Your task to perform on an android device: Go to Maps Image 0: 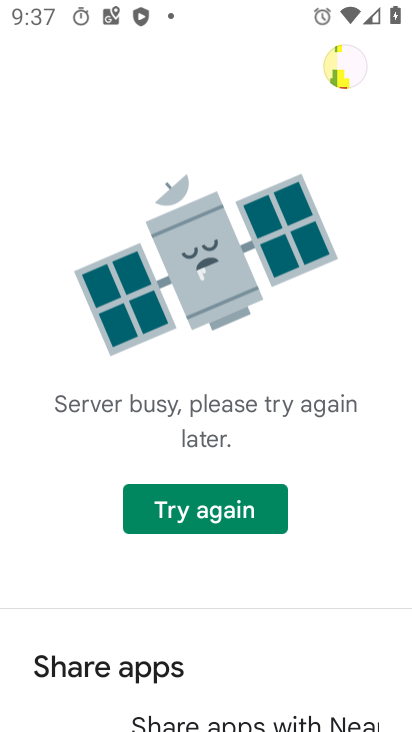
Step 0: press back button
Your task to perform on an android device: Go to Maps Image 1: 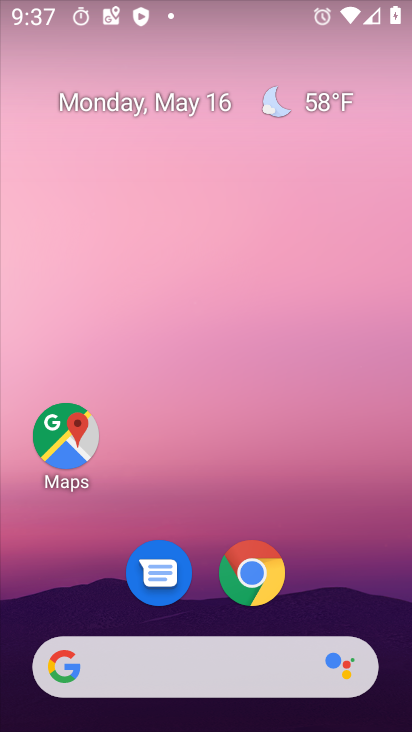
Step 1: drag from (378, 643) to (173, 138)
Your task to perform on an android device: Go to Maps Image 2: 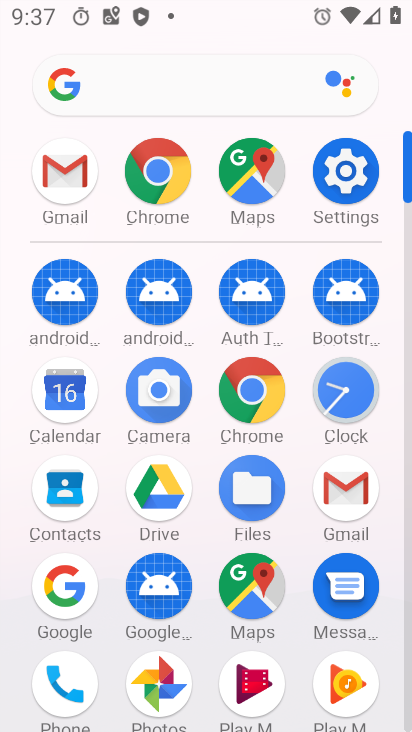
Step 2: click (243, 592)
Your task to perform on an android device: Go to Maps Image 3: 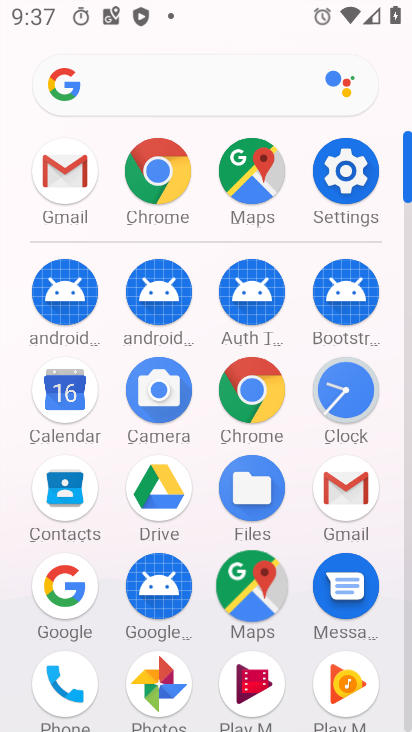
Step 3: click (243, 591)
Your task to perform on an android device: Go to Maps Image 4: 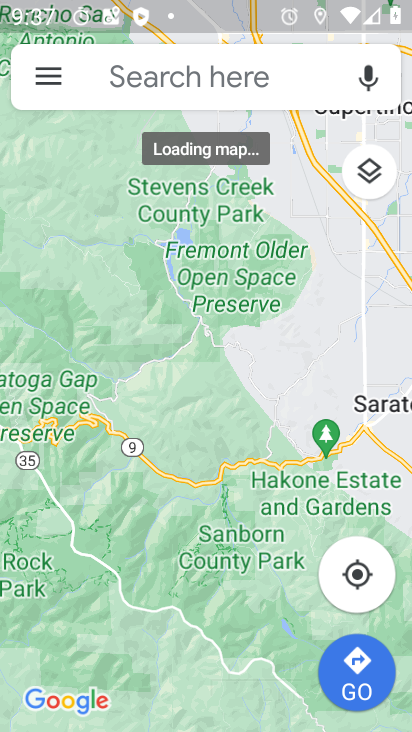
Step 4: task complete